Your task to perform on an android device: change text size in settings app Image 0: 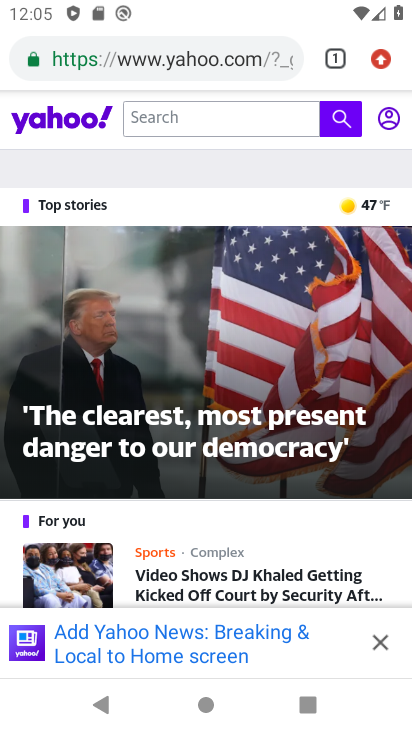
Step 0: press home button
Your task to perform on an android device: change text size in settings app Image 1: 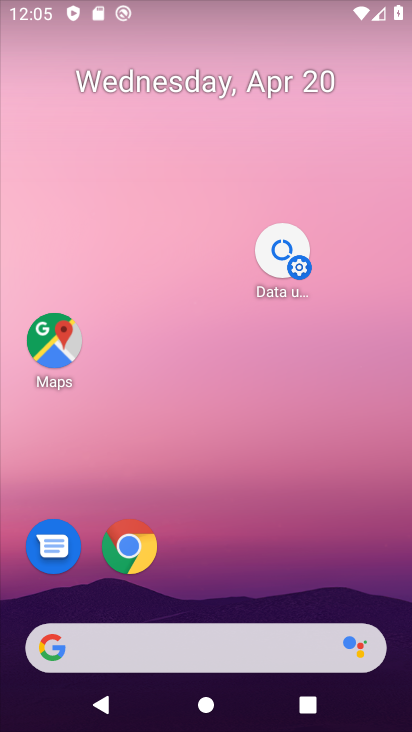
Step 1: drag from (261, 619) to (269, 1)
Your task to perform on an android device: change text size in settings app Image 2: 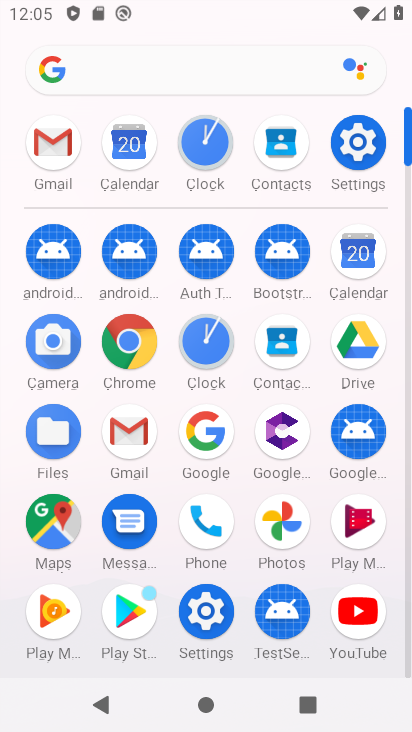
Step 2: click (360, 155)
Your task to perform on an android device: change text size in settings app Image 3: 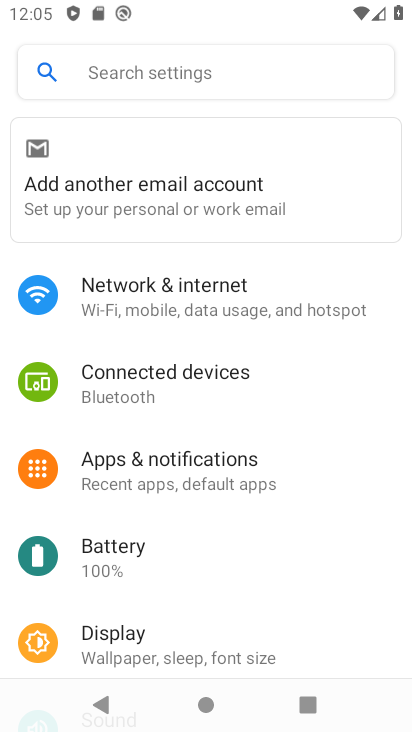
Step 3: drag from (355, 602) to (310, 0)
Your task to perform on an android device: change text size in settings app Image 4: 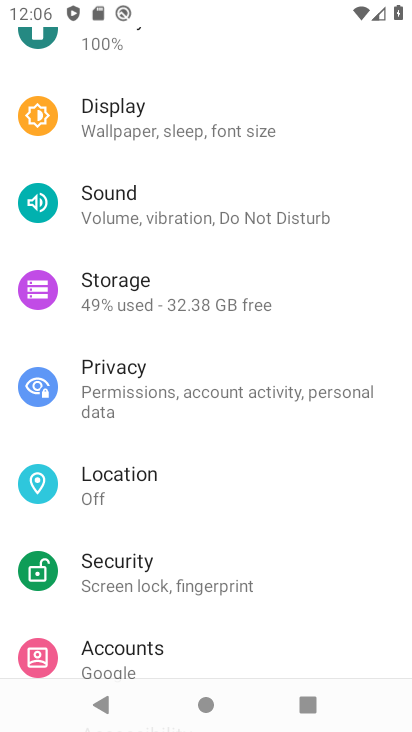
Step 4: click (279, 113)
Your task to perform on an android device: change text size in settings app Image 5: 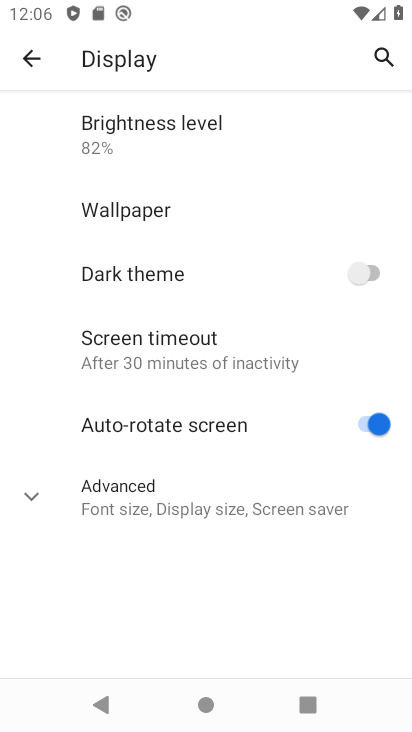
Step 5: press home button
Your task to perform on an android device: change text size in settings app Image 6: 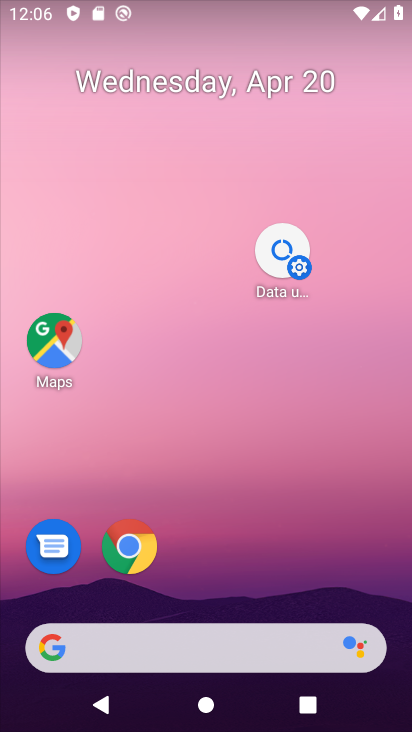
Step 6: drag from (244, 710) to (164, 4)
Your task to perform on an android device: change text size in settings app Image 7: 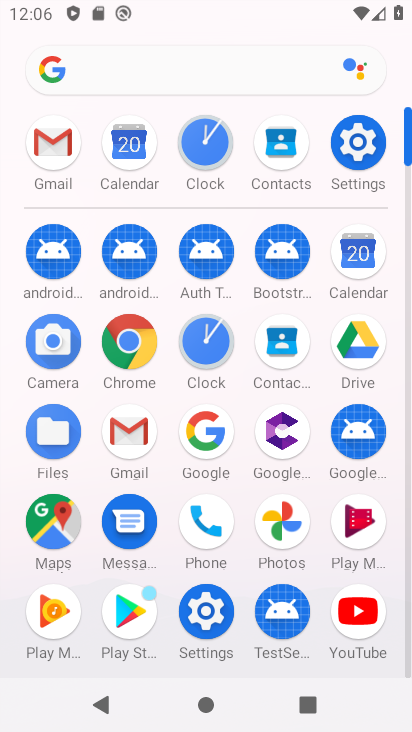
Step 7: click (359, 145)
Your task to perform on an android device: change text size in settings app Image 8: 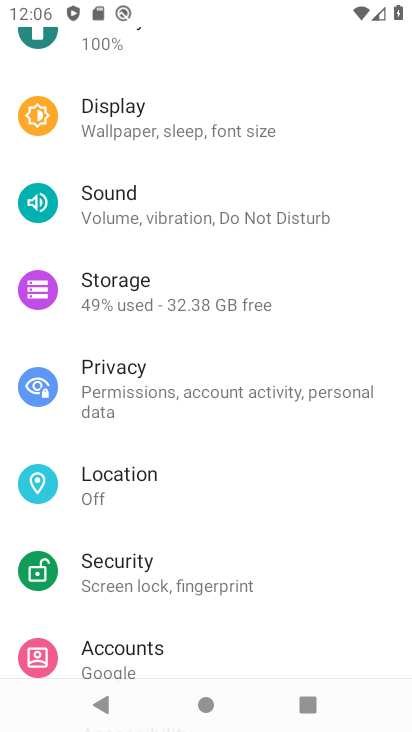
Step 8: click (242, 119)
Your task to perform on an android device: change text size in settings app Image 9: 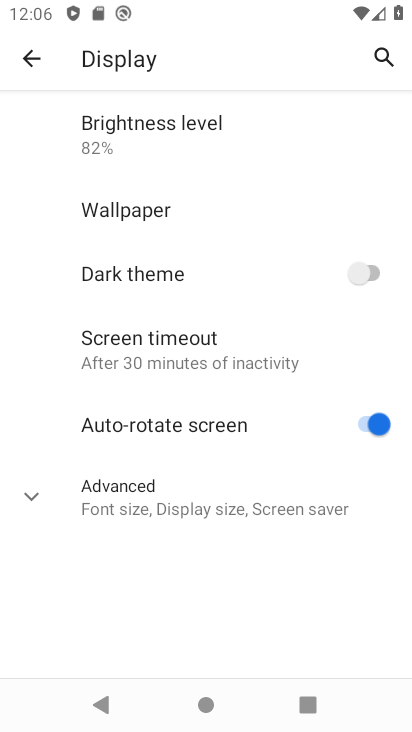
Step 9: click (239, 504)
Your task to perform on an android device: change text size in settings app Image 10: 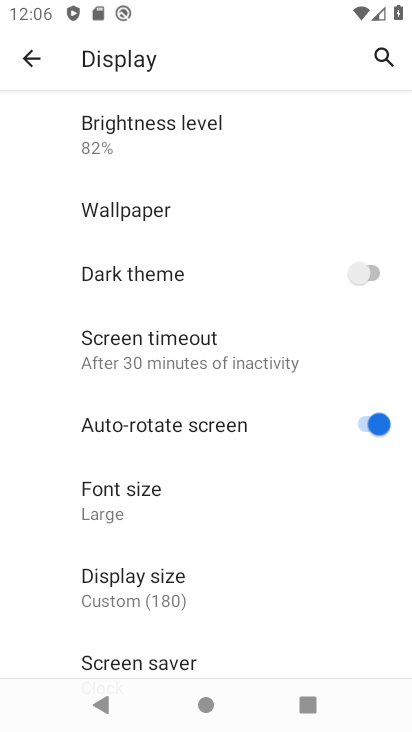
Step 10: click (188, 506)
Your task to perform on an android device: change text size in settings app Image 11: 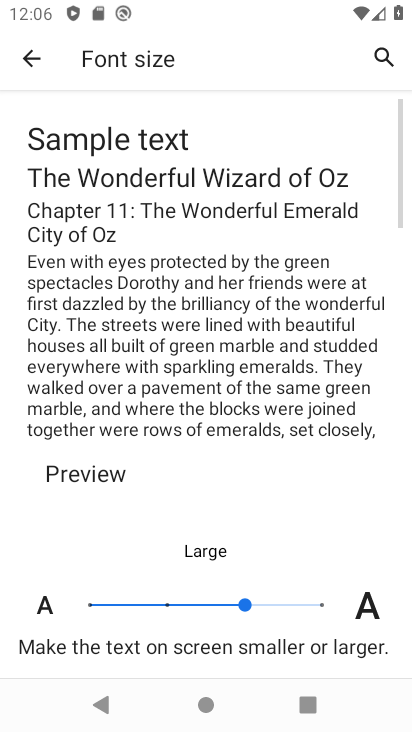
Step 11: click (132, 602)
Your task to perform on an android device: change text size in settings app Image 12: 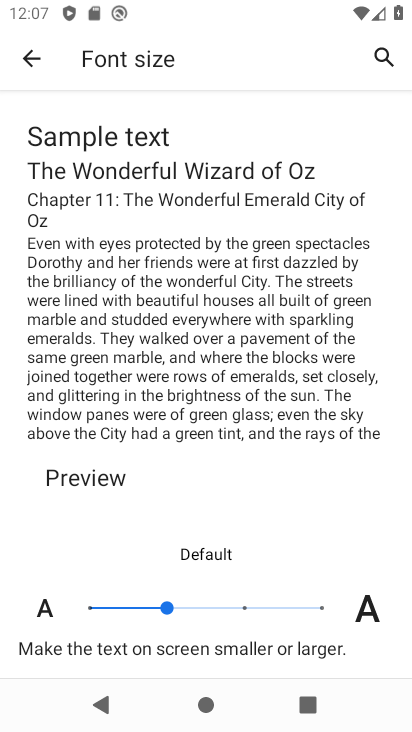
Step 12: task complete